Your task to perform on an android device: turn on wifi Image 0: 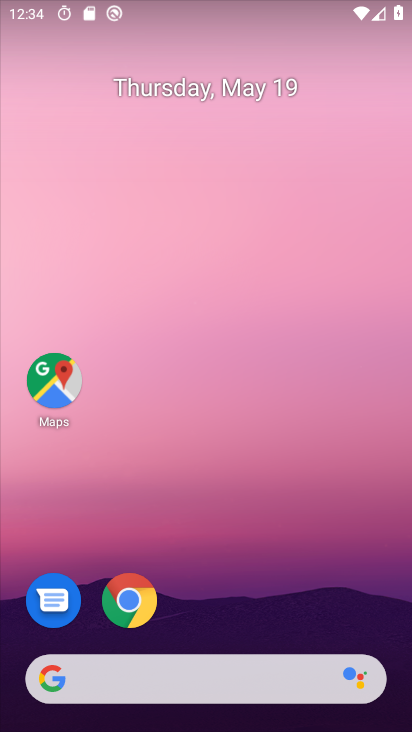
Step 0: drag from (279, 562) to (123, 14)
Your task to perform on an android device: turn on wifi Image 1: 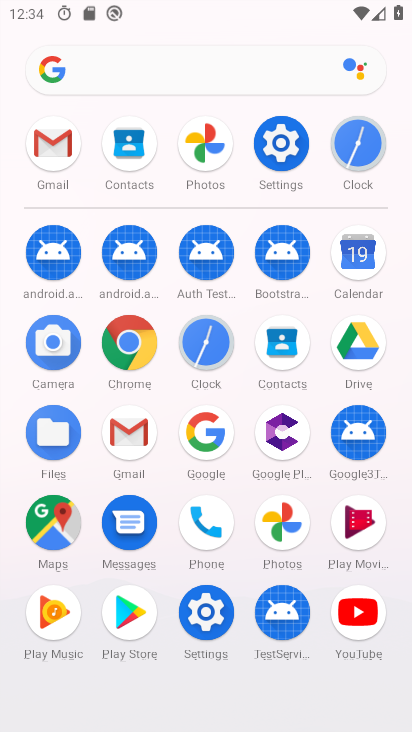
Step 1: click (277, 151)
Your task to perform on an android device: turn on wifi Image 2: 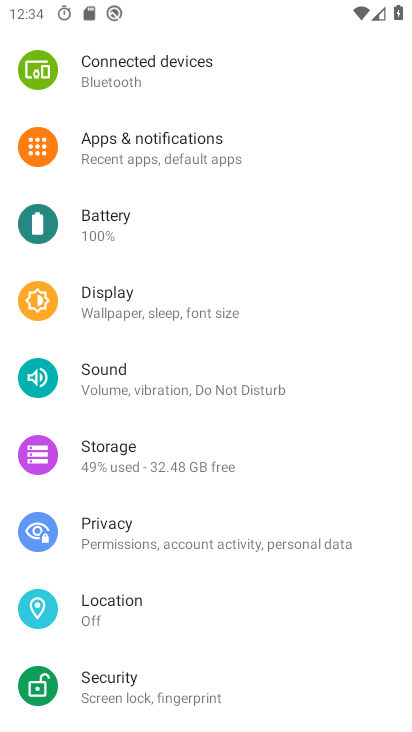
Step 2: drag from (270, 98) to (217, 637)
Your task to perform on an android device: turn on wifi Image 3: 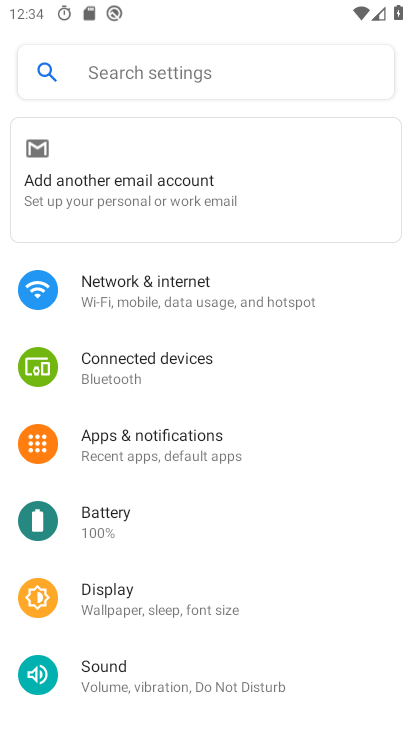
Step 3: click (149, 277)
Your task to perform on an android device: turn on wifi Image 4: 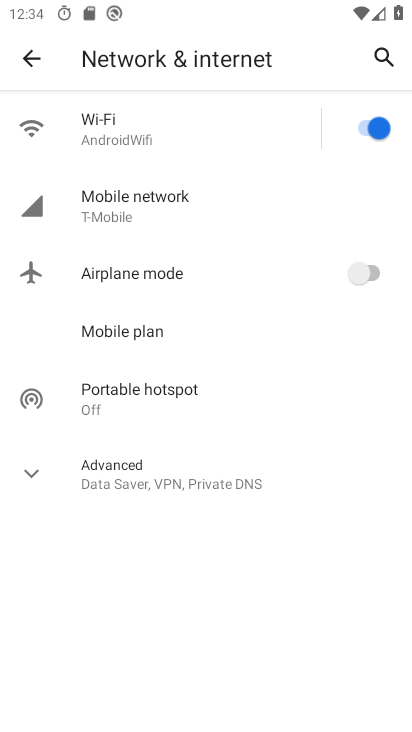
Step 4: click (185, 137)
Your task to perform on an android device: turn on wifi Image 5: 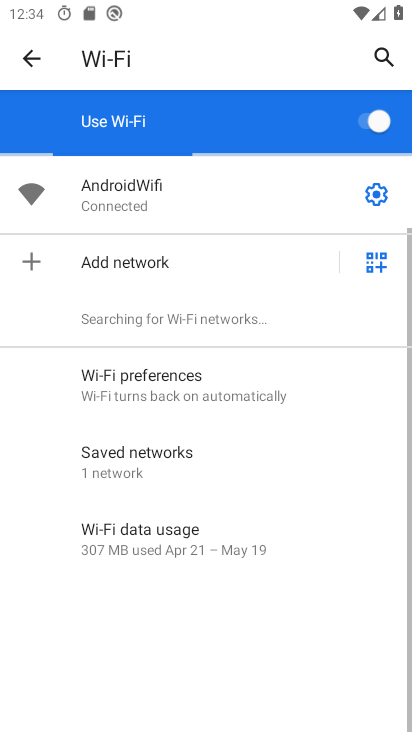
Step 5: task complete